Your task to perform on an android device: Set an alarm for 7pm Image 0: 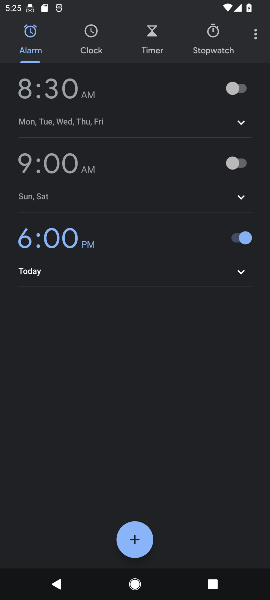
Step 0: click (122, 538)
Your task to perform on an android device: Set an alarm for 7pm Image 1: 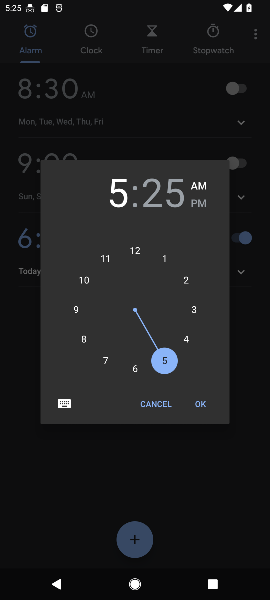
Step 1: click (110, 358)
Your task to perform on an android device: Set an alarm for 7pm Image 2: 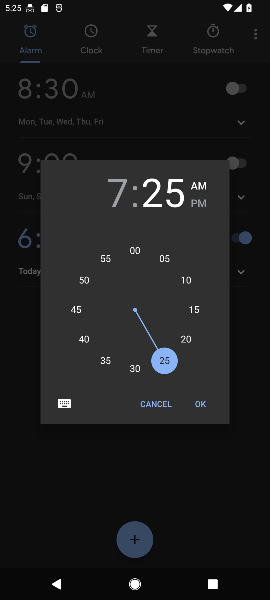
Step 2: click (136, 249)
Your task to perform on an android device: Set an alarm for 7pm Image 3: 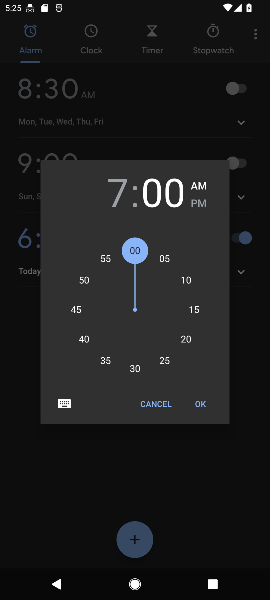
Step 3: click (195, 208)
Your task to perform on an android device: Set an alarm for 7pm Image 4: 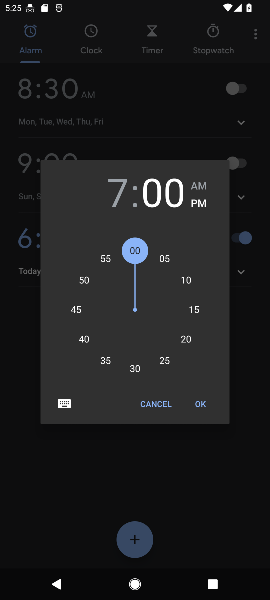
Step 4: click (190, 404)
Your task to perform on an android device: Set an alarm for 7pm Image 5: 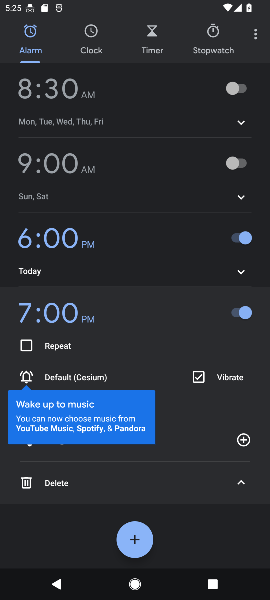
Step 5: task complete